Your task to perform on an android device: Open CNN.com Image 0: 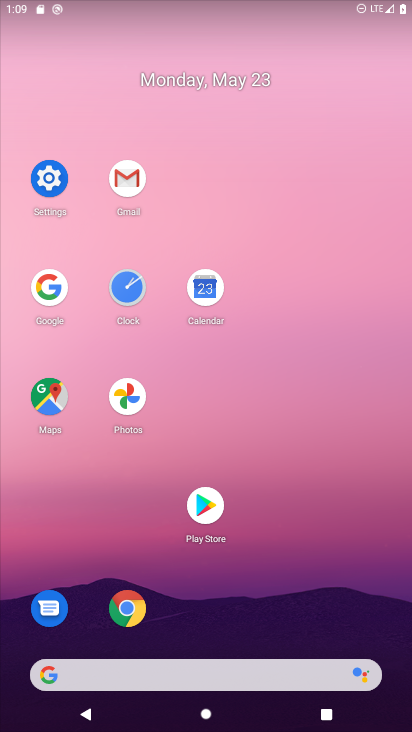
Step 0: click (139, 610)
Your task to perform on an android device: Open CNN.com Image 1: 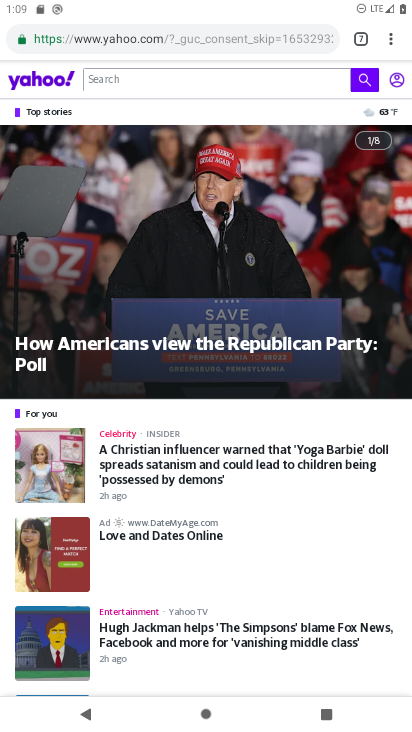
Step 1: click (368, 41)
Your task to perform on an android device: Open CNN.com Image 2: 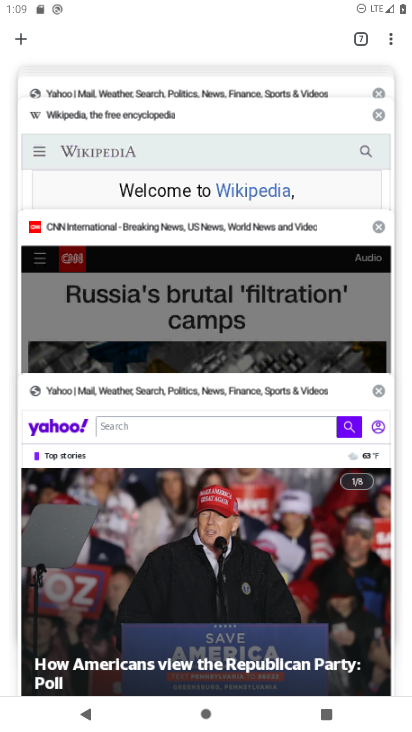
Step 2: drag from (191, 245) to (183, 376)
Your task to perform on an android device: Open CNN.com Image 3: 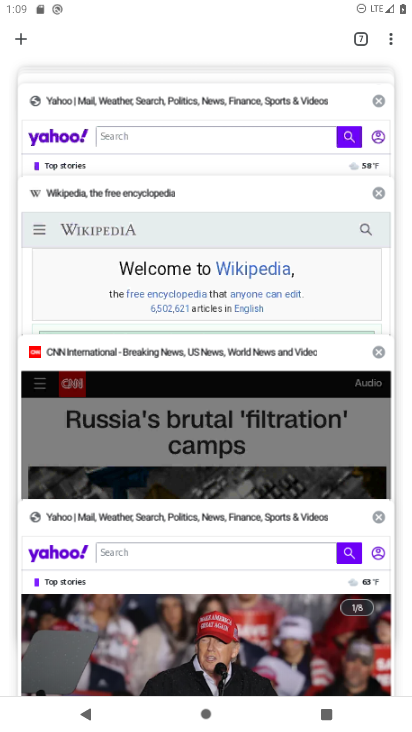
Step 3: click (158, 384)
Your task to perform on an android device: Open CNN.com Image 4: 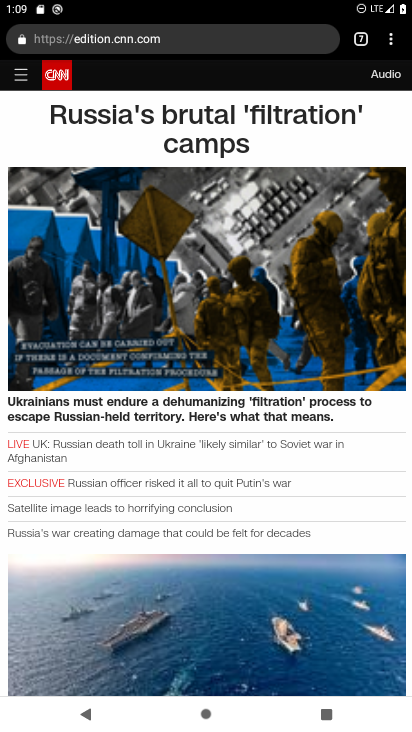
Step 4: task complete